Your task to perform on an android device: View the shopping cart on walmart. Search for jbl charge 4 on walmart, select the first entry, and add it to the cart. Image 0: 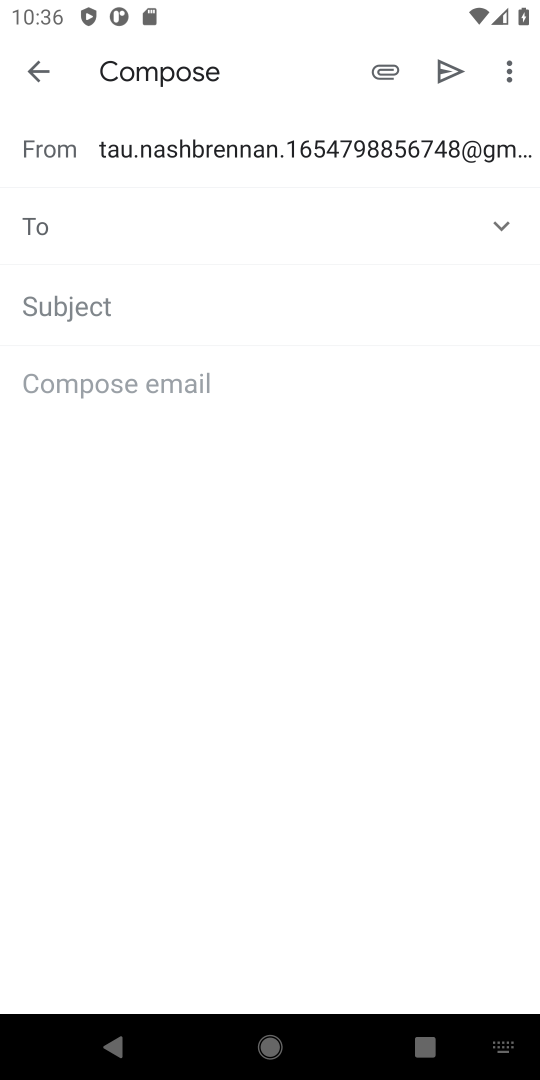
Step 0: press home button
Your task to perform on an android device: View the shopping cart on walmart. Search for jbl charge 4 on walmart, select the first entry, and add it to the cart. Image 1: 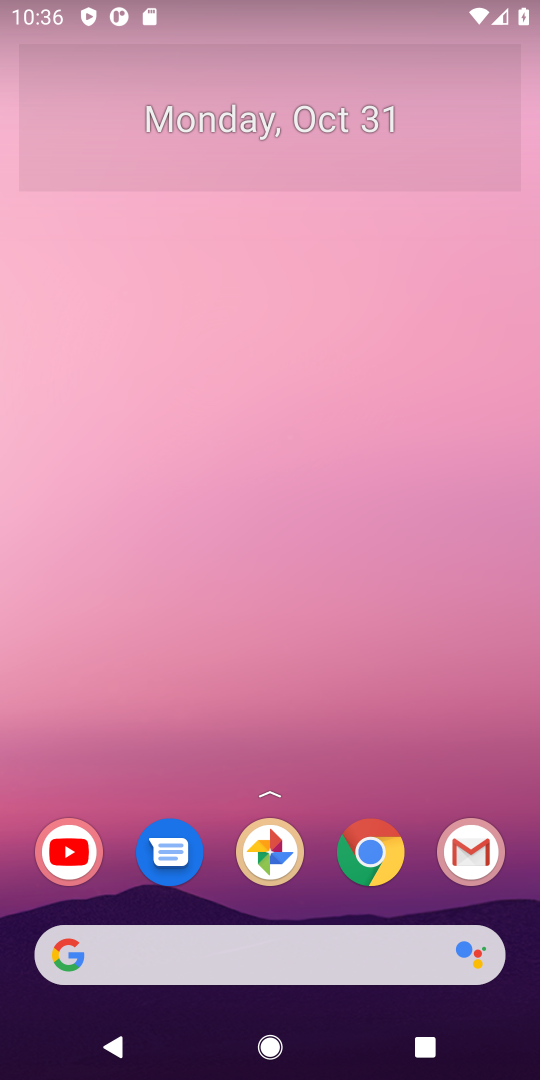
Step 1: drag from (39, 855) to (285, 92)
Your task to perform on an android device: View the shopping cart on walmart. Search for jbl charge 4 on walmart, select the first entry, and add it to the cart. Image 2: 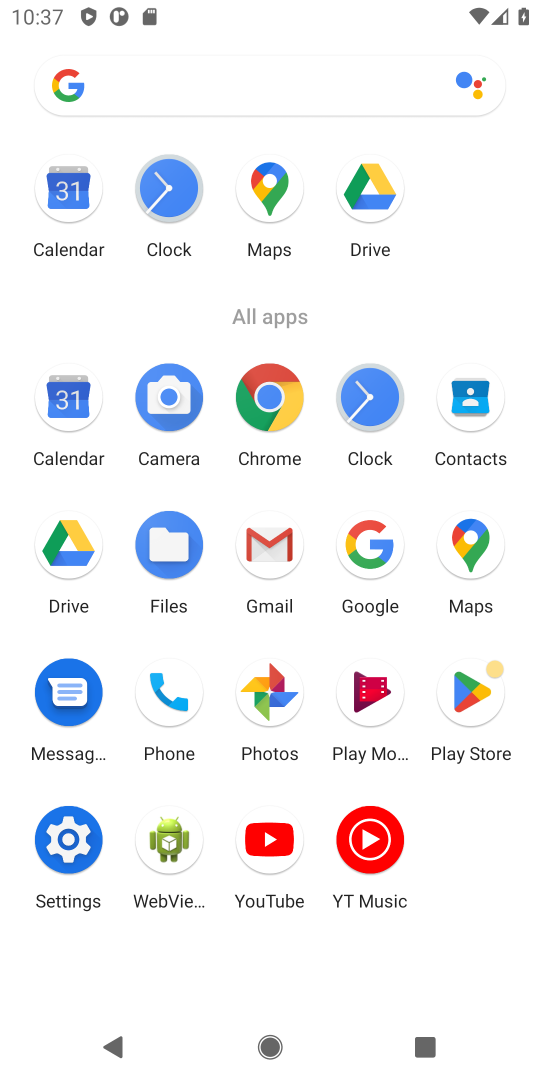
Step 2: click (274, 410)
Your task to perform on an android device: View the shopping cart on walmart. Search for jbl charge 4 on walmart, select the first entry, and add it to the cart. Image 3: 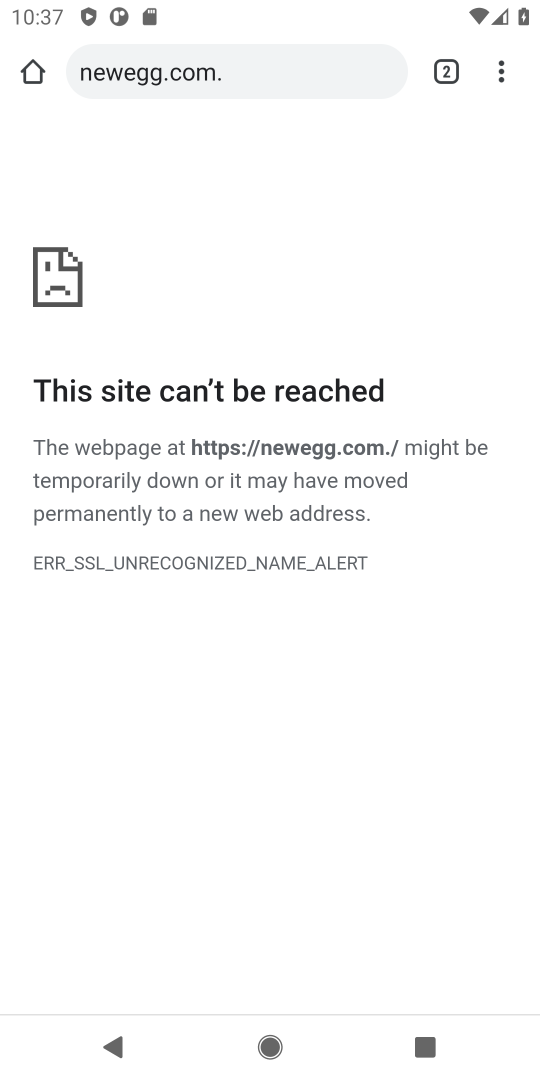
Step 3: click (239, 67)
Your task to perform on an android device: View the shopping cart on walmart. Search for jbl charge 4 on walmart, select the first entry, and add it to the cart. Image 4: 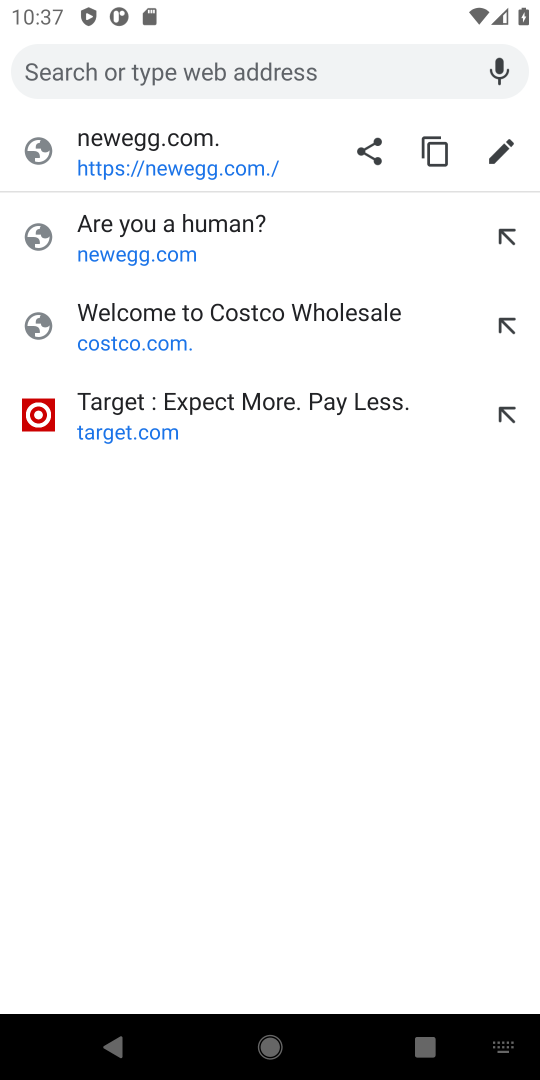
Step 4: type "walmart"
Your task to perform on an android device: View the shopping cart on walmart. Search for jbl charge 4 on walmart, select the first entry, and add it to the cart. Image 5: 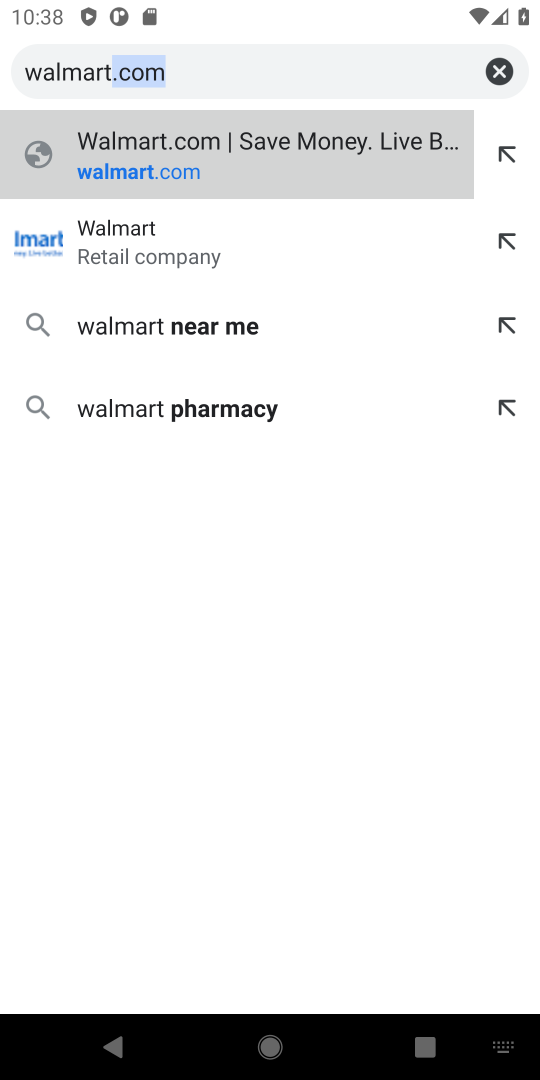
Step 5: press enter
Your task to perform on an android device: View the shopping cart on walmart. Search for jbl charge 4 on walmart, select the first entry, and add it to the cart. Image 6: 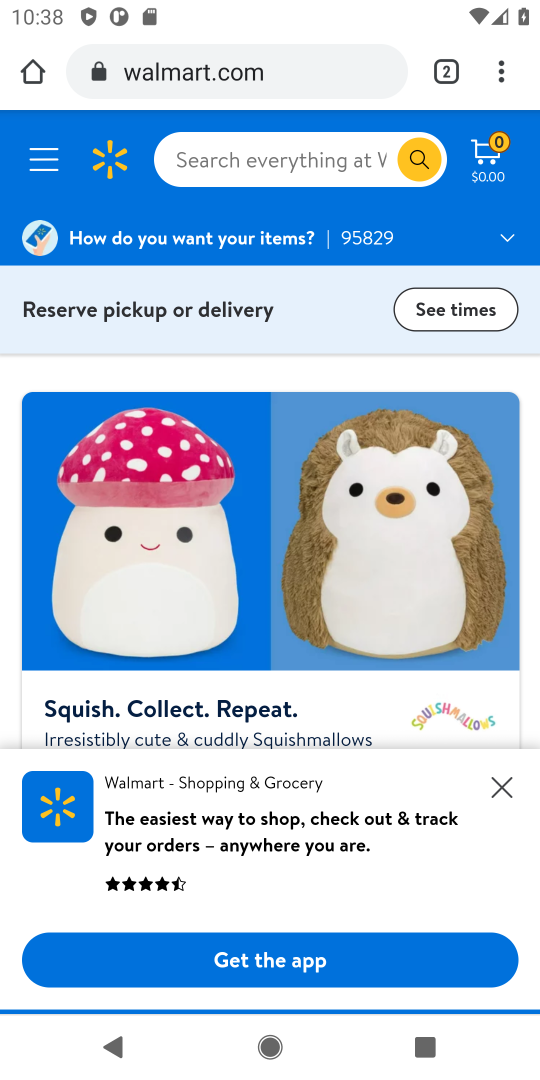
Step 6: click (251, 139)
Your task to perform on an android device: View the shopping cart on walmart. Search for jbl charge 4 on walmart, select the first entry, and add it to the cart. Image 7: 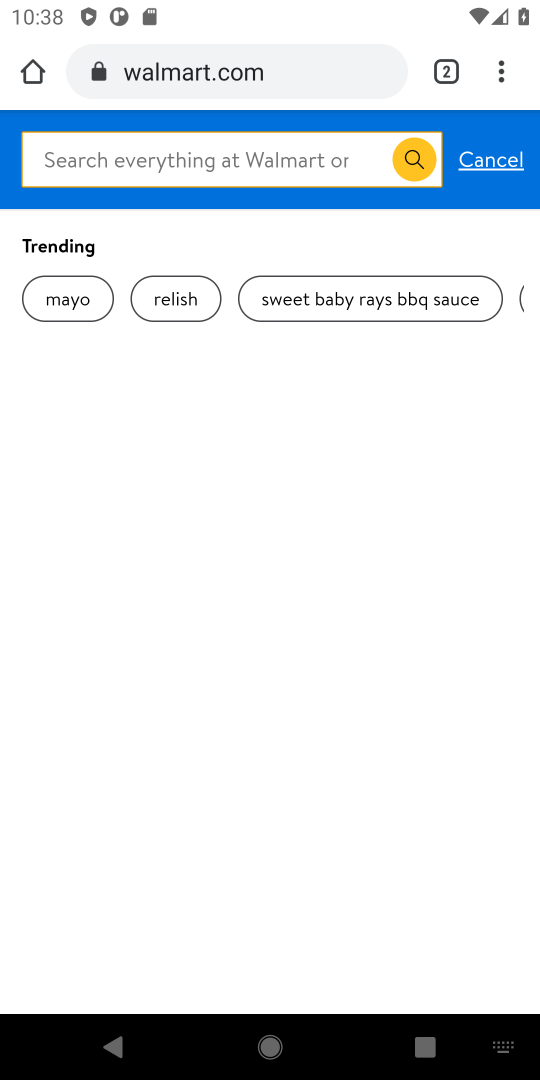
Step 7: type "jbl charge 4"
Your task to perform on an android device: View the shopping cart on walmart. Search for jbl charge 4 on walmart, select the first entry, and add it to the cart. Image 8: 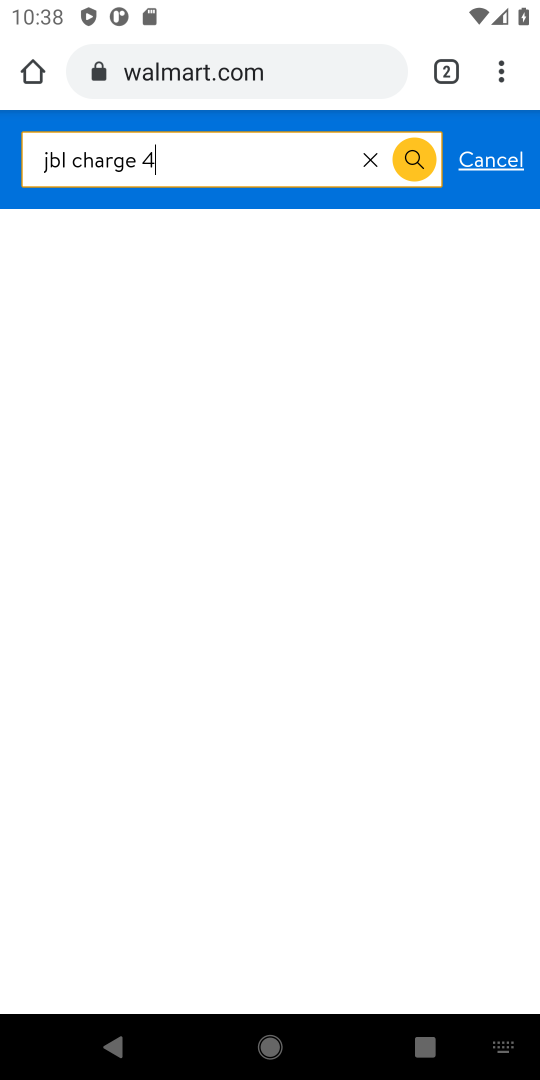
Step 8: press enter
Your task to perform on an android device: View the shopping cart on walmart. Search for jbl charge 4 on walmart, select the first entry, and add it to the cart. Image 9: 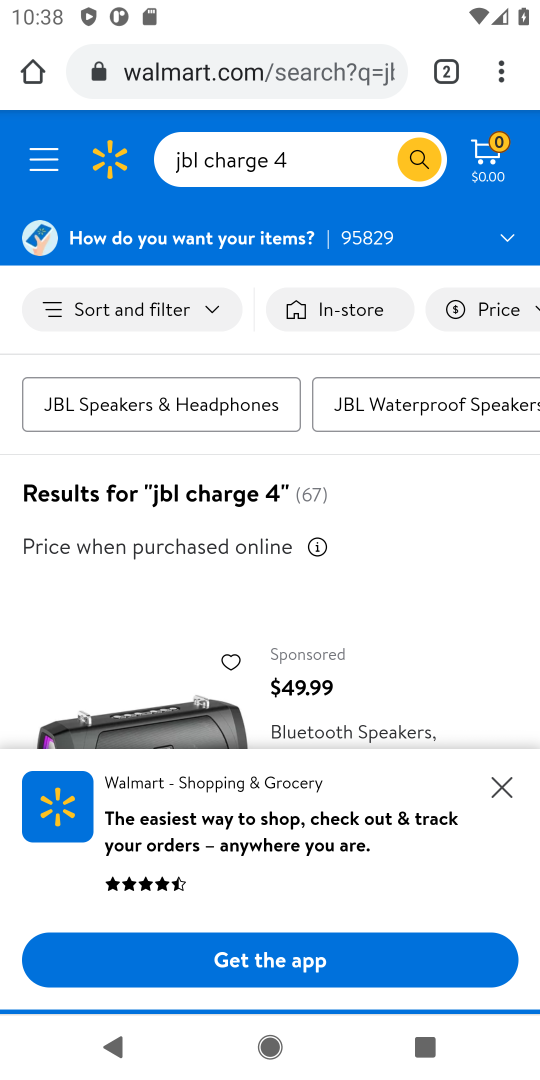
Step 9: click (506, 783)
Your task to perform on an android device: View the shopping cart on walmart. Search for jbl charge 4 on walmart, select the first entry, and add it to the cart. Image 10: 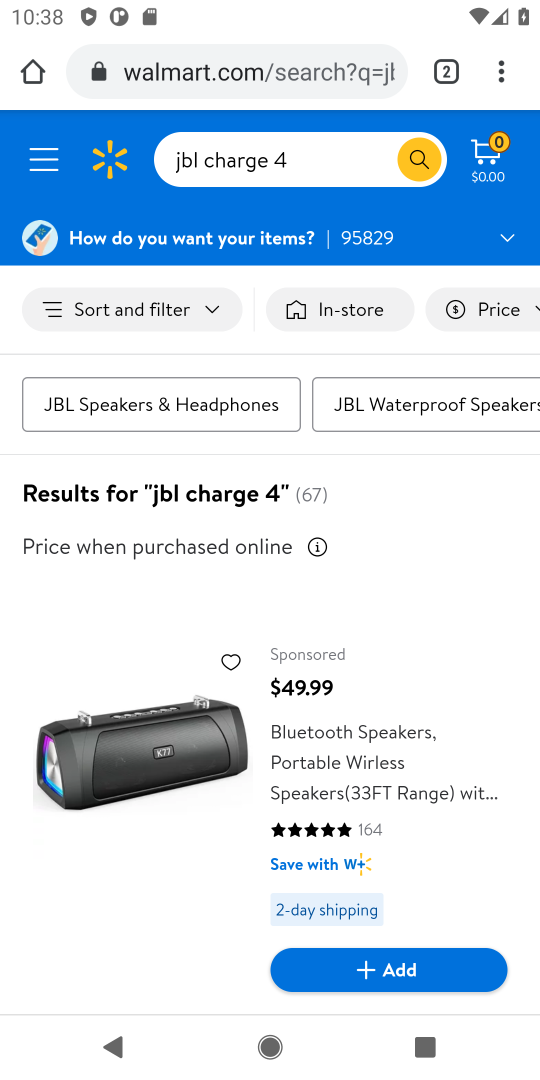
Step 10: click (352, 950)
Your task to perform on an android device: View the shopping cart on walmart. Search for jbl charge 4 on walmart, select the first entry, and add it to the cart. Image 11: 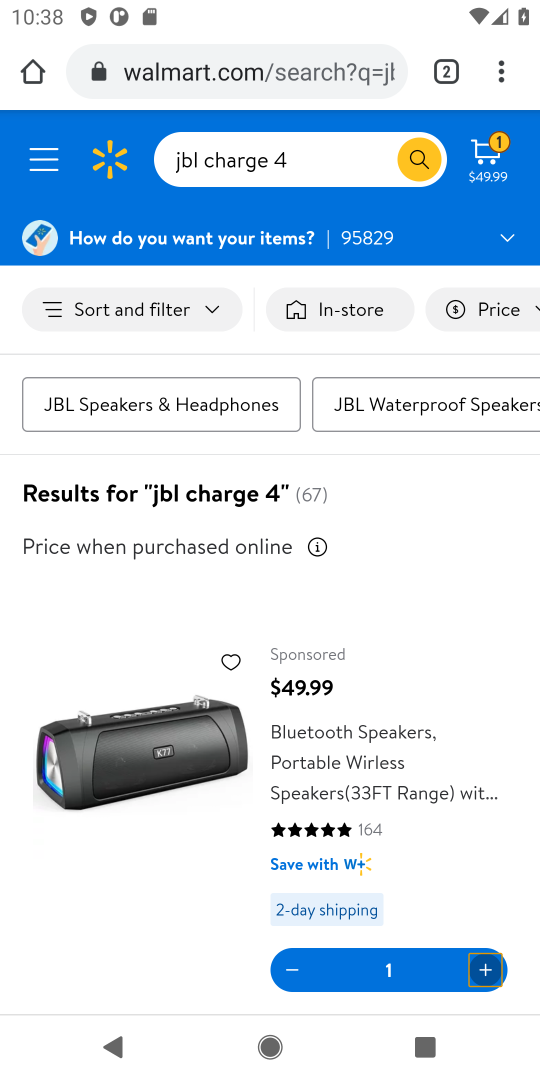
Step 11: click (490, 147)
Your task to perform on an android device: View the shopping cart on walmart. Search for jbl charge 4 on walmart, select the first entry, and add it to the cart. Image 12: 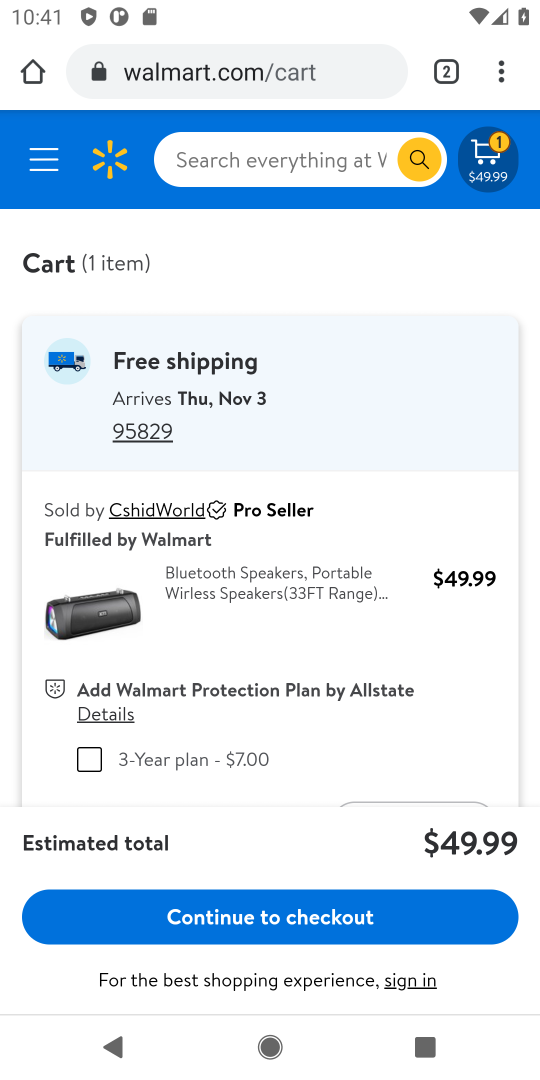
Step 12: task complete